Your task to perform on an android device: open sync settings in chrome Image 0: 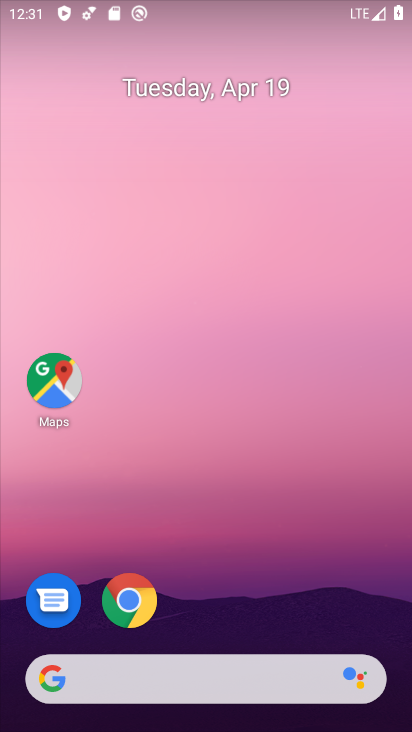
Step 0: click (124, 602)
Your task to perform on an android device: open sync settings in chrome Image 1: 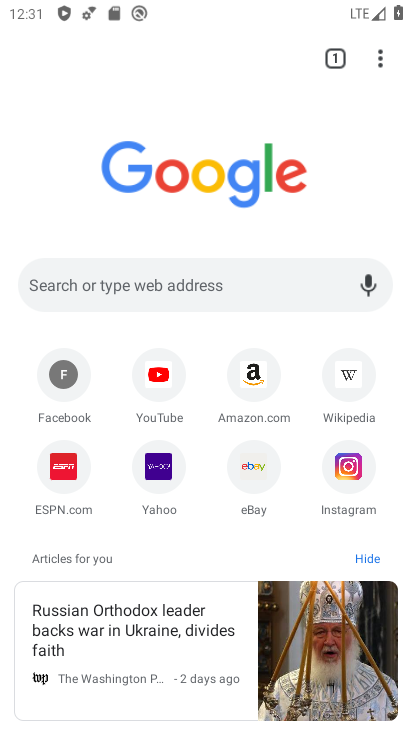
Step 1: click (377, 47)
Your task to perform on an android device: open sync settings in chrome Image 2: 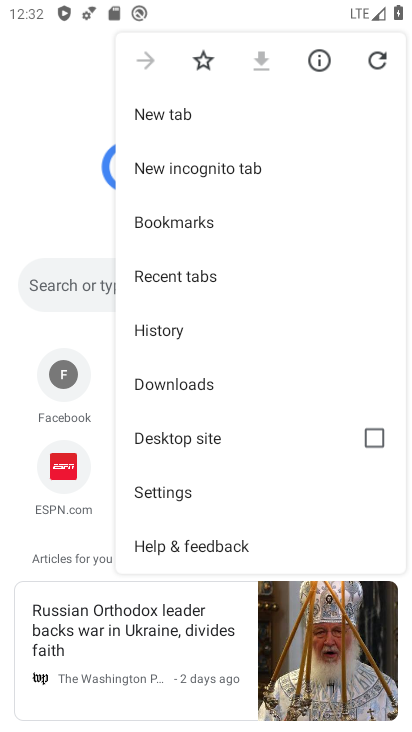
Step 2: click (194, 487)
Your task to perform on an android device: open sync settings in chrome Image 3: 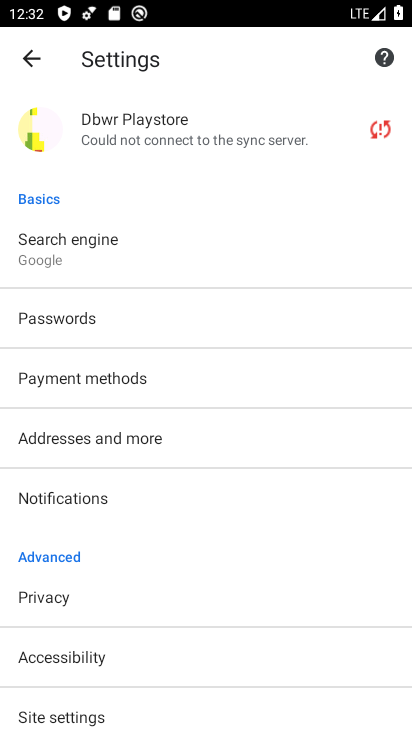
Step 3: drag from (211, 489) to (211, 135)
Your task to perform on an android device: open sync settings in chrome Image 4: 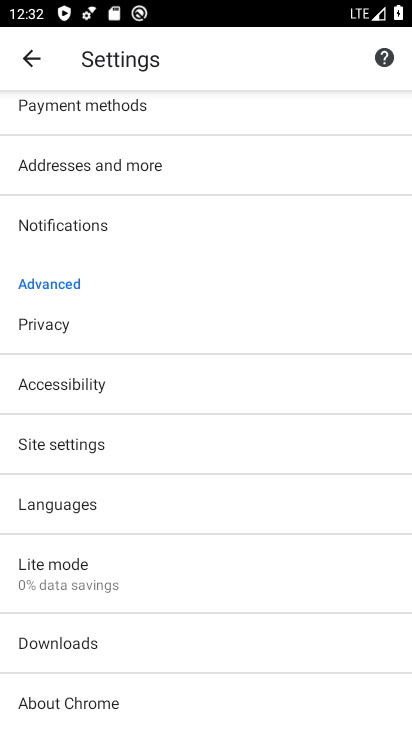
Step 4: drag from (103, 129) to (140, 570)
Your task to perform on an android device: open sync settings in chrome Image 5: 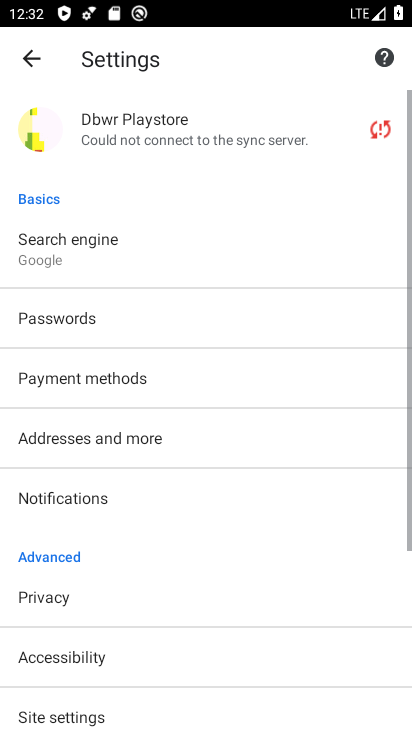
Step 5: click (104, 239)
Your task to perform on an android device: open sync settings in chrome Image 6: 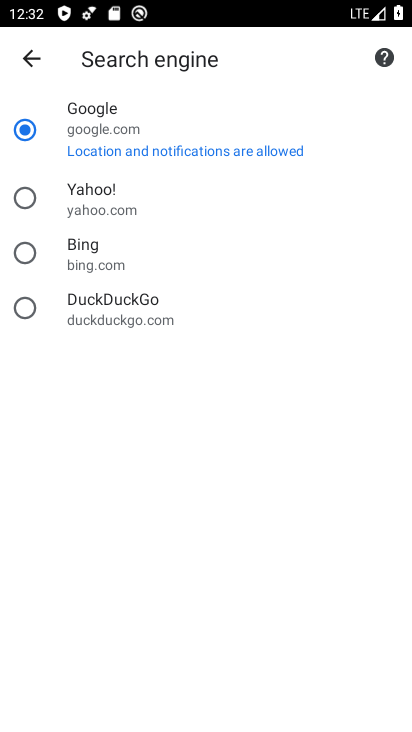
Step 6: click (24, 46)
Your task to perform on an android device: open sync settings in chrome Image 7: 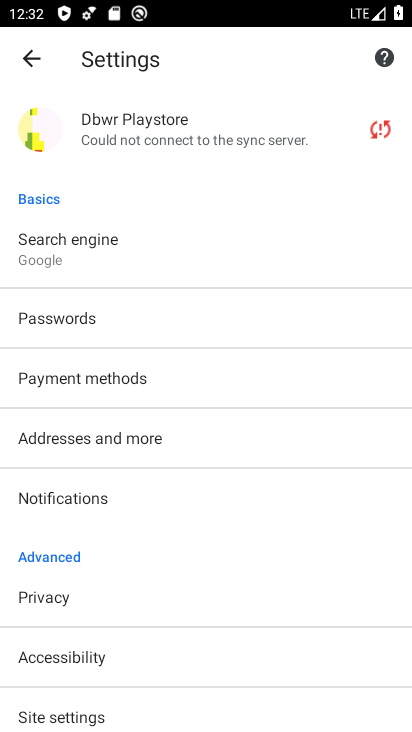
Step 7: click (200, 134)
Your task to perform on an android device: open sync settings in chrome Image 8: 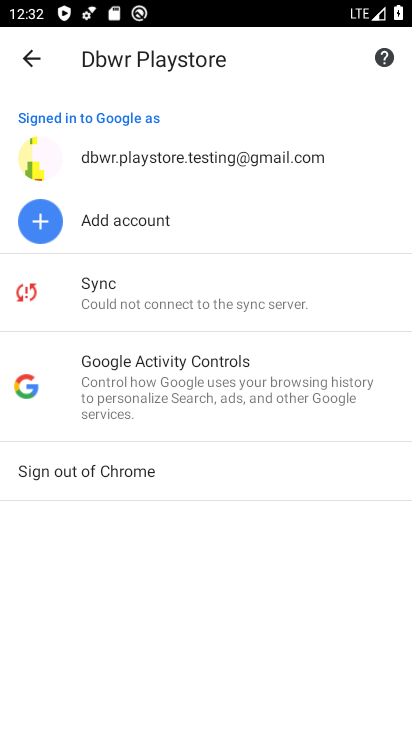
Step 8: click (171, 308)
Your task to perform on an android device: open sync settings in chrome Image 9: 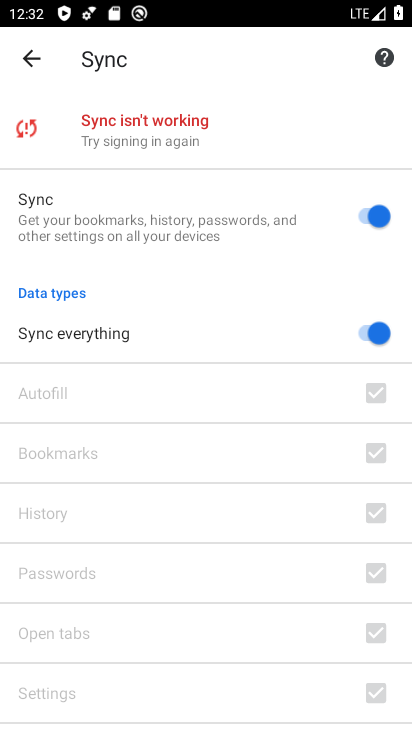
Step 9: task complete